Your task to perform on an android device: visit the assistant section in the google photos Image 0: 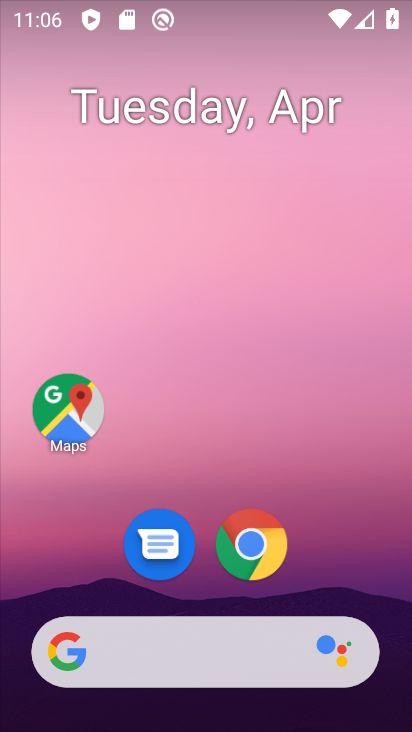
Step 0: drag from (360, 542) to (330, 148)
Your task to perform on an android device: visit the assistant section in the google photos Image 1: 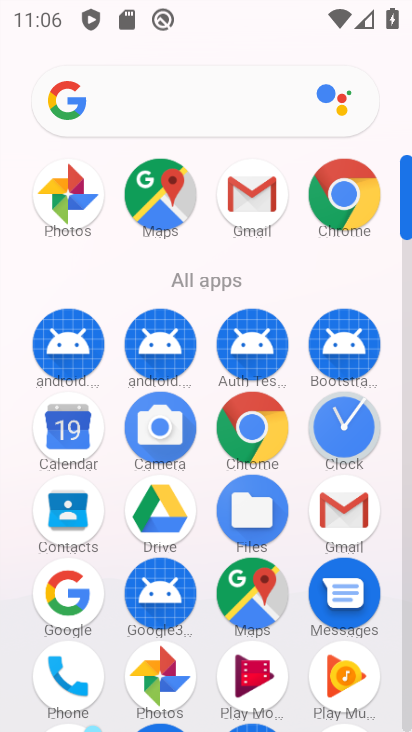
Step 1: drag from (289, 545) to (291, 307)
Your task to perform on an android device: visit the assistant section in the google photos Image 2: 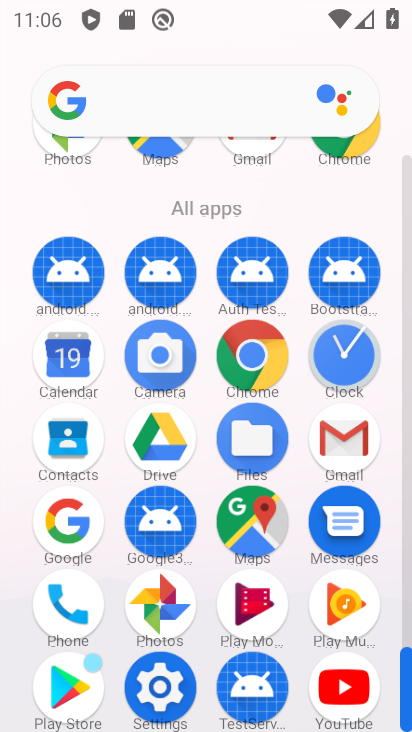
Step 2: click (160, 596)
Your task to perform on an android device: visit the assistant section in the google photos Image 3: 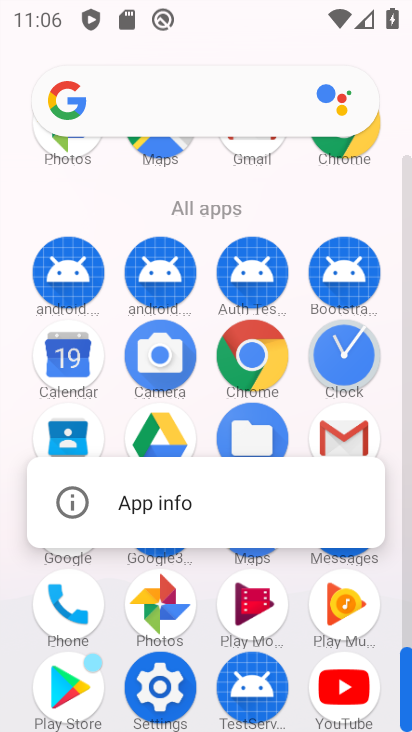
Step 3: click (157, 592)
Your task to perform on an android device: visit the assistant section in the google photos Image 4: 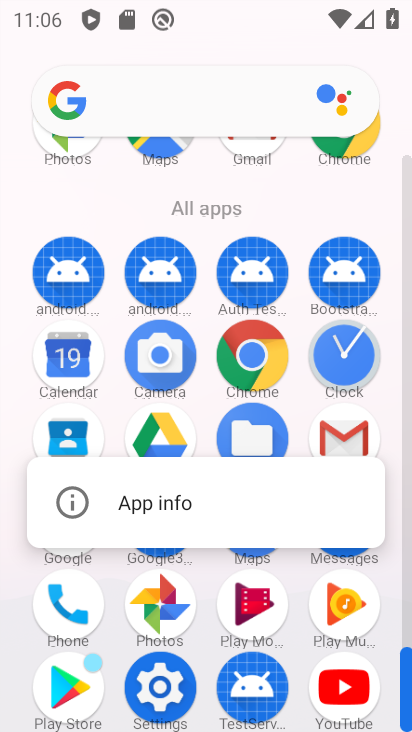
Step 4: click (173, 629)
Your task to perform on an android device: visit the assistant section in the google photos Image 5: 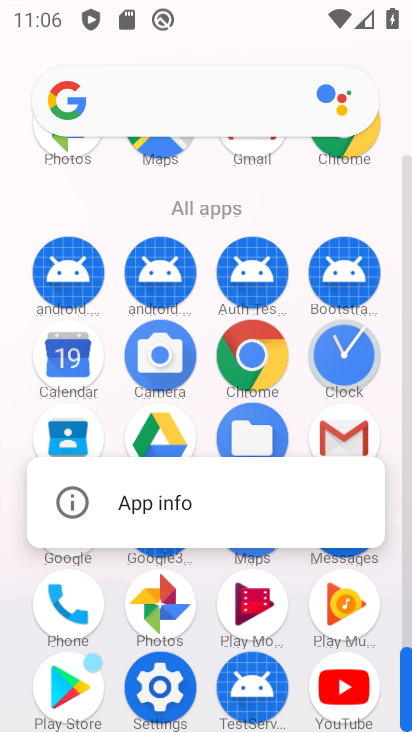
Step 5: click (172, 628)
Your task to perform on an android device: visit the assistant section in the google photos Image 6: 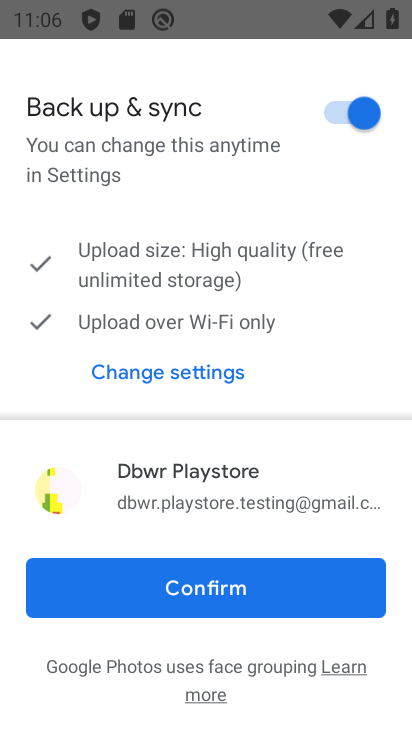
Step 6: click (243, 597)
Your task to perform on an android device: visit the assistant section in the google photos Image 7: 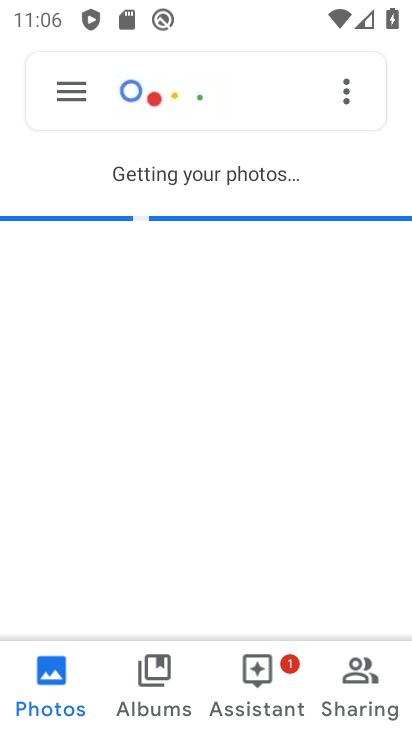
Step 7: click (254, 673)
Your task to perform on an android device: visit the assistant section in the google photos Image 8: 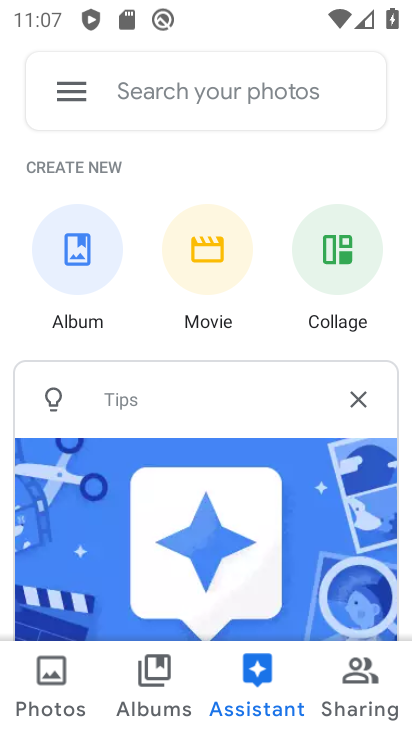
Step 8: task complete